Your task to perform on an android device: Search for pizza restaurants on Maps Image 0: 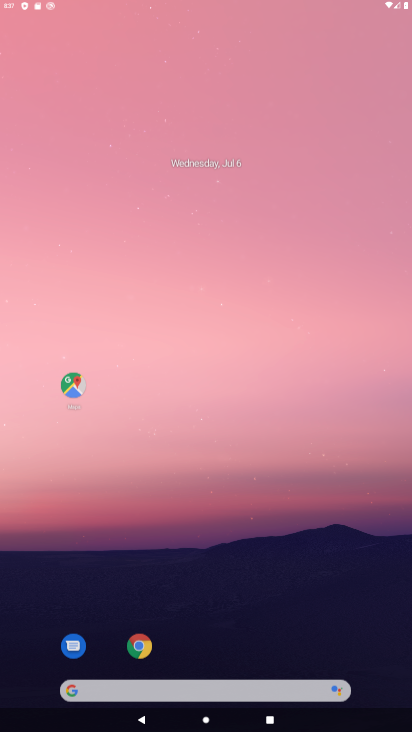
Step 0: press home button
Your task to perform on an android device: Search for pizza restaurants on Maps Image 1: 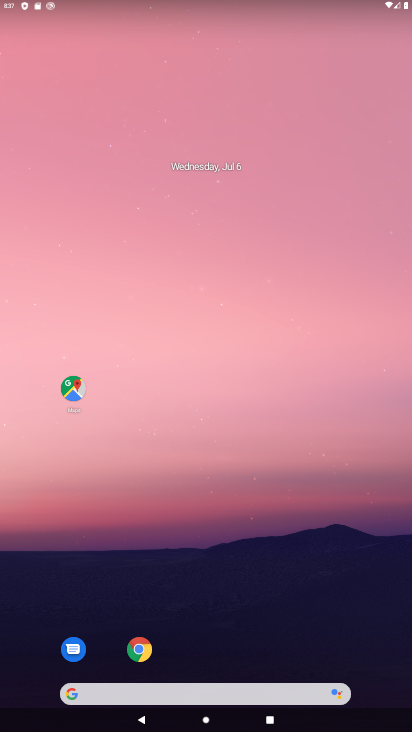
Step 1: click (76, 386)
Your task to perform on an android device: Search for pizza restaurants on Maps Image 2: 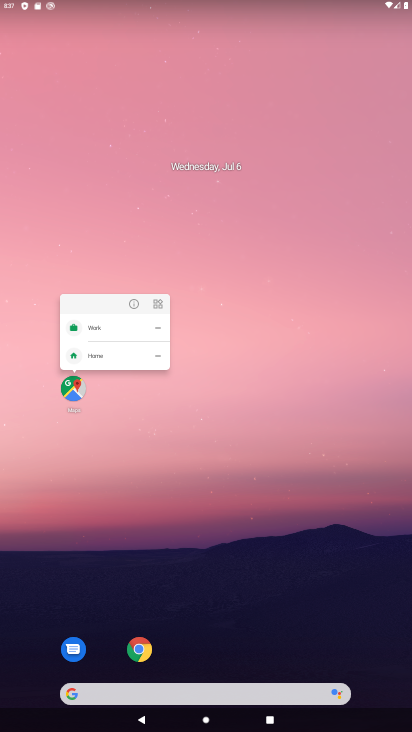
Step 2: click (76, 386)
Your task to perform on an android device: Search for pizza restaurants on Maps Image 3: 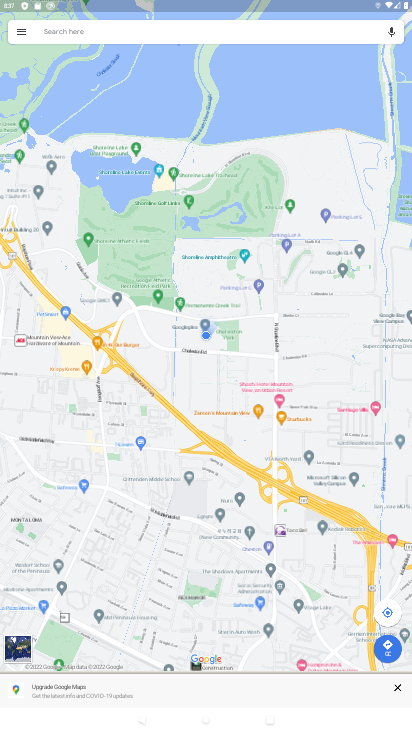
Step 3: click (70, 24)
Your task to perform on an android device: Search for pizza restaurants on Maps Image 4: 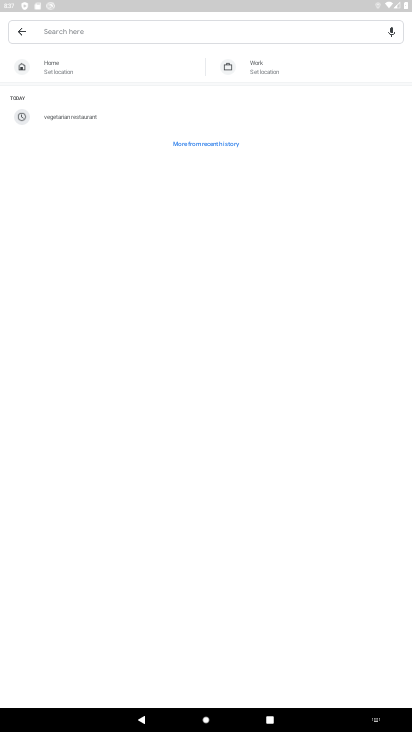
Step 4: type "pizza restaurant"
Your task to perform on an android device: Search for pizza restaurants on Maps Image 5: 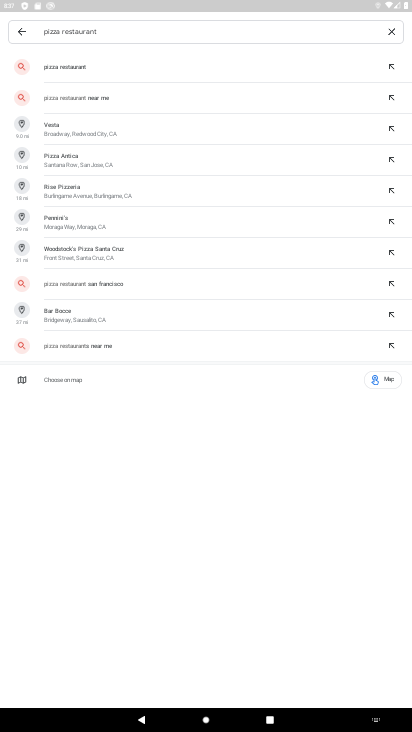
Step 5: click (91, 68)
Your task to perform on an android device: Search for pizza restaurants on Maps Image 6: 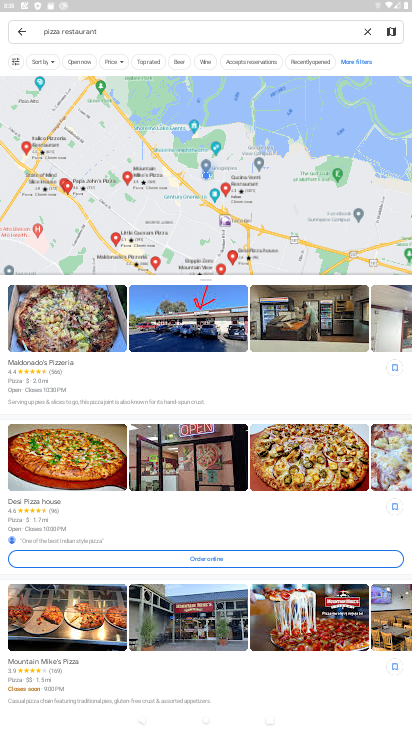
Step 6: task complete